Your task to perform on an android device: Turn on the flashlight Image 0: 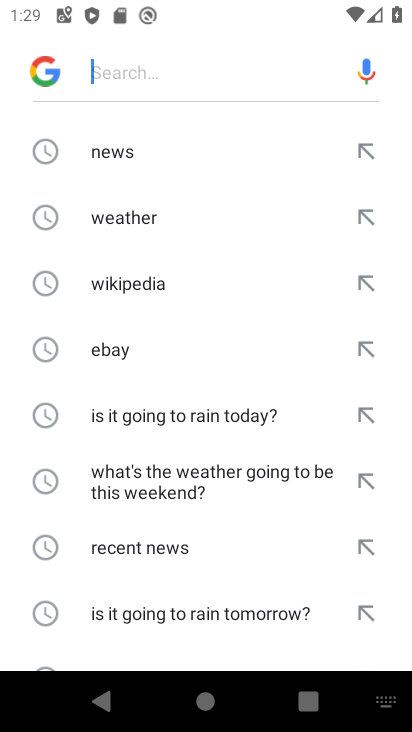
Step 0: press home button
Your task to perform on an android device: Turn on the flashlight Image 1: 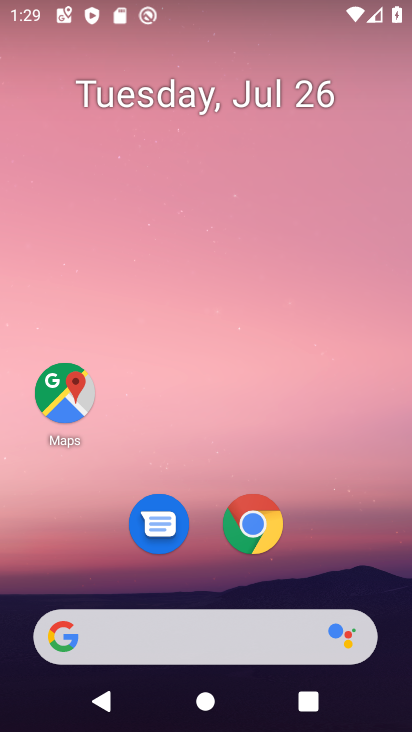
Step 1: drag from (320, 518) to (366, 22)
Your task to perform on an android device: Turn on the flashlight Image 2: 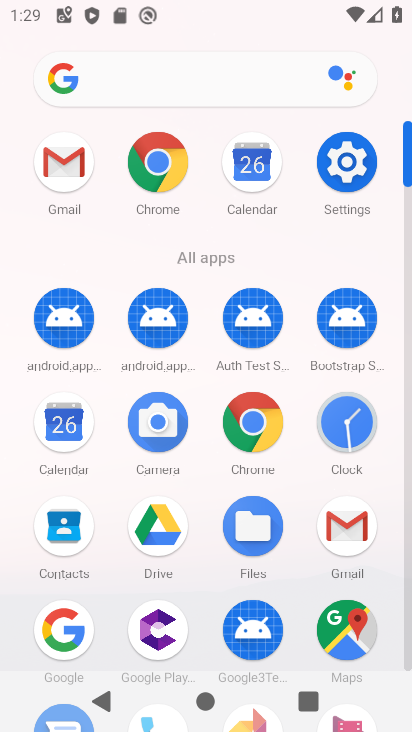
Step 2: click (350, 169)
Your task to perform on an android device: Turn on the flashlight Image 3: 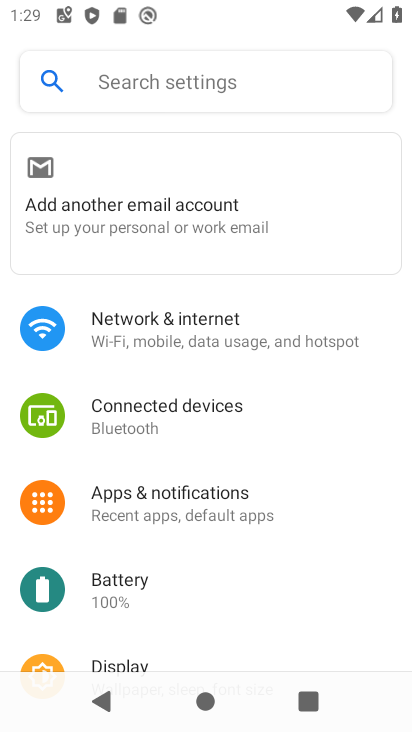
Step 3: click (242, 83)
Your task to perform on an android device: Turn on the flashlight Image 4: 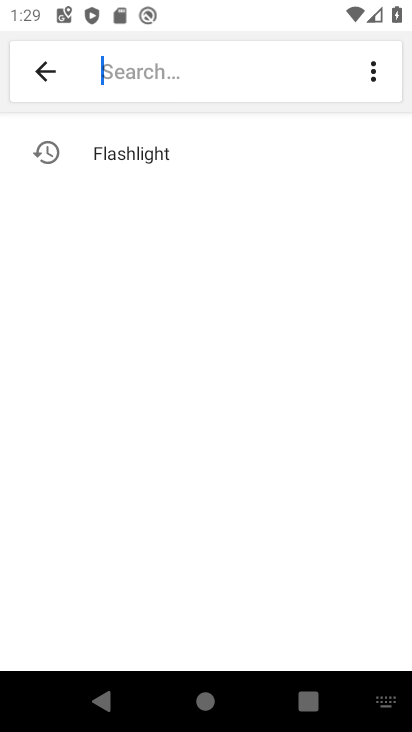
Step 4: click (155, 148)
Your task to perform on an android device: Turn on the flashlight Image 5: 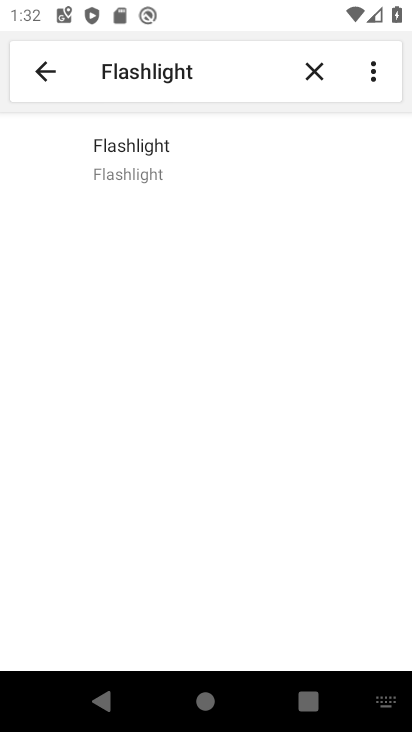
Step 5: task complete